Your task to perform on an android device: change timer sound Image 0: 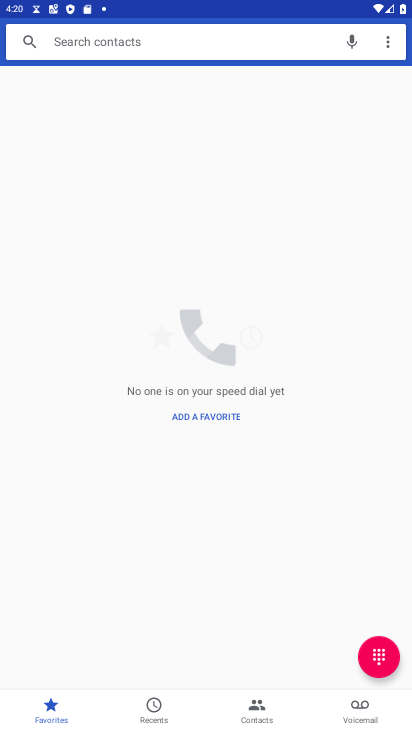
Step 0: press home button
Your task to perform on an android device: change timer sound Image 1: 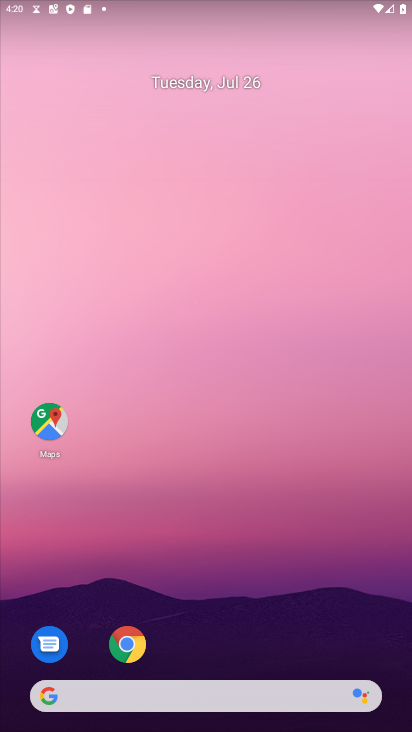
Step 1: drag from (265, 654) to (168, 98)
Your task to perform on an android device: change timer sound Image 2: 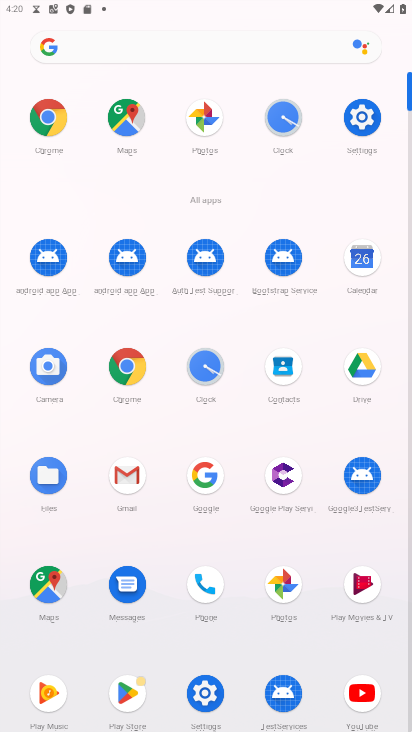
Step 2: click (280, 122)
Your task to perform on an android device: change timer sound Image 3: 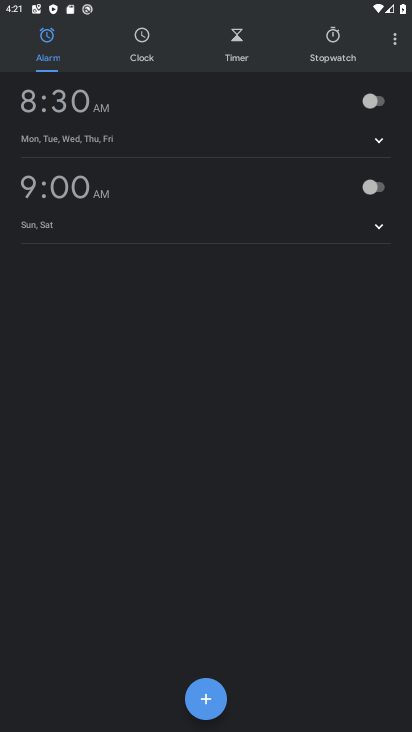
Step 3: click (385, 48)
Your task to perform on an android device: change timer sound Image 4: 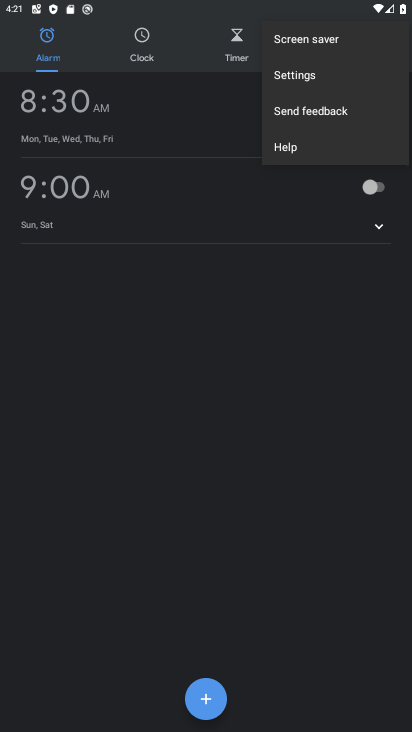
Step 4: click (358, 75)
Your task to perform on an android device: change timer sound Image 5: 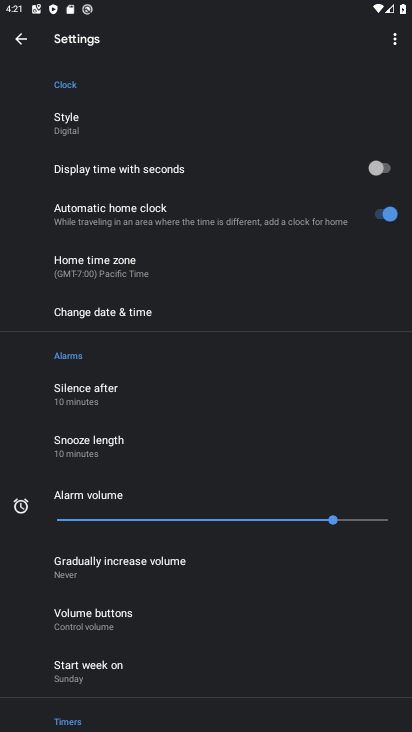
Step 5: drag from (199, 624) to (154, 302)
Your task to perform on an android device: change timer sound Image 6: 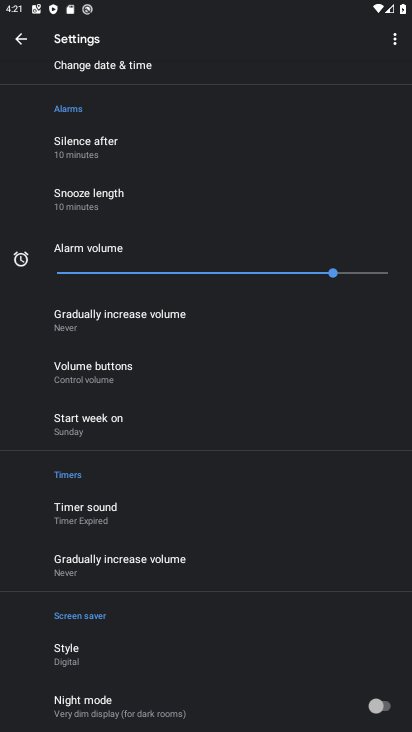
Step 6: click (188, 514)
Your task to perform on an android device: change timer sound Image 7: 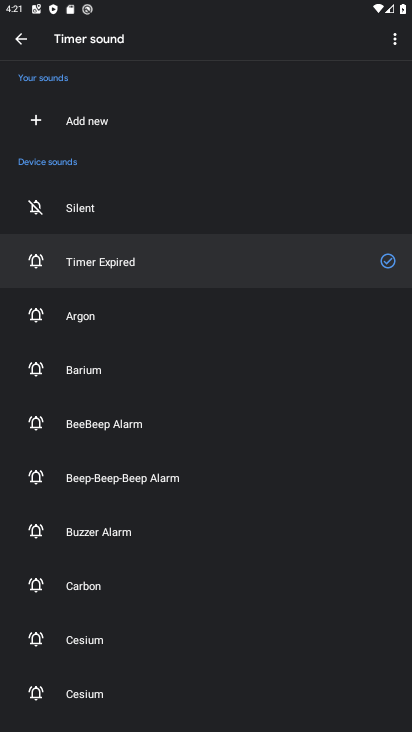
Step 7: click (163, 473)
Your task to perform on an android device: change timer sound Image 8: 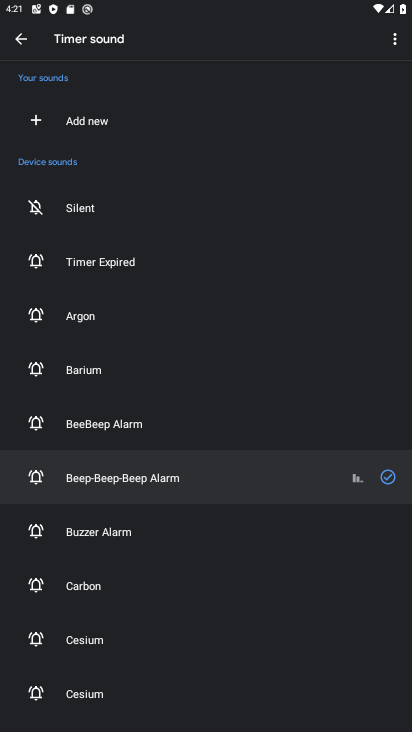
Step 8: task complete